Your task to perform on an android device: remove spam from my inbox in the gmail app Image 0: 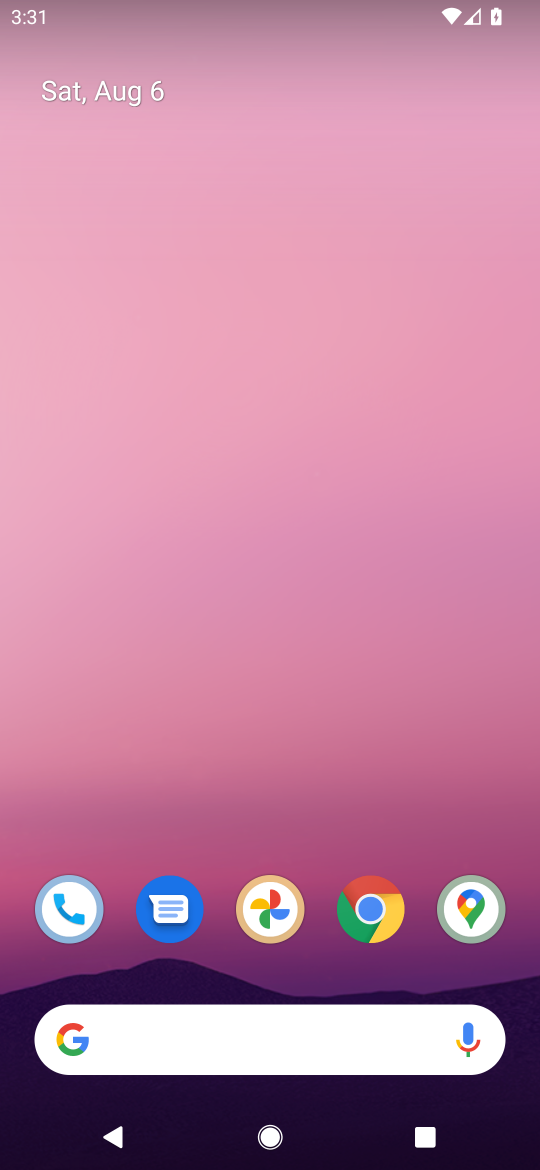
Step 0: press back button
Your task to perform on an android device: remove spam from my inbox in the gmail app Image 1: 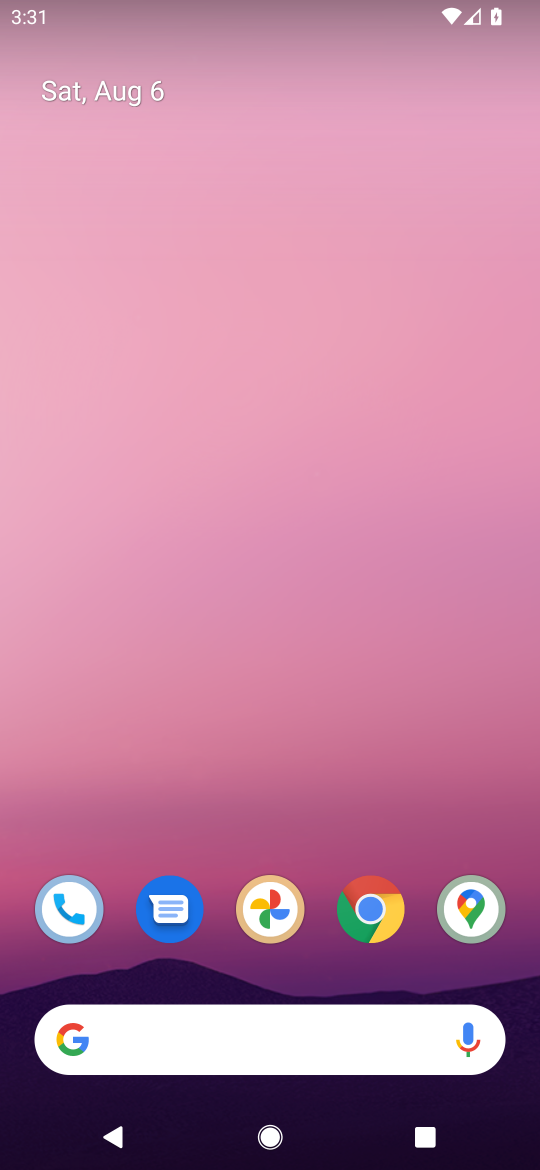
Step 1: drag from (204, 684) to (339, 12)
Your task to perform on an android device: remove spam from my inbox in the gmail app Image 2: 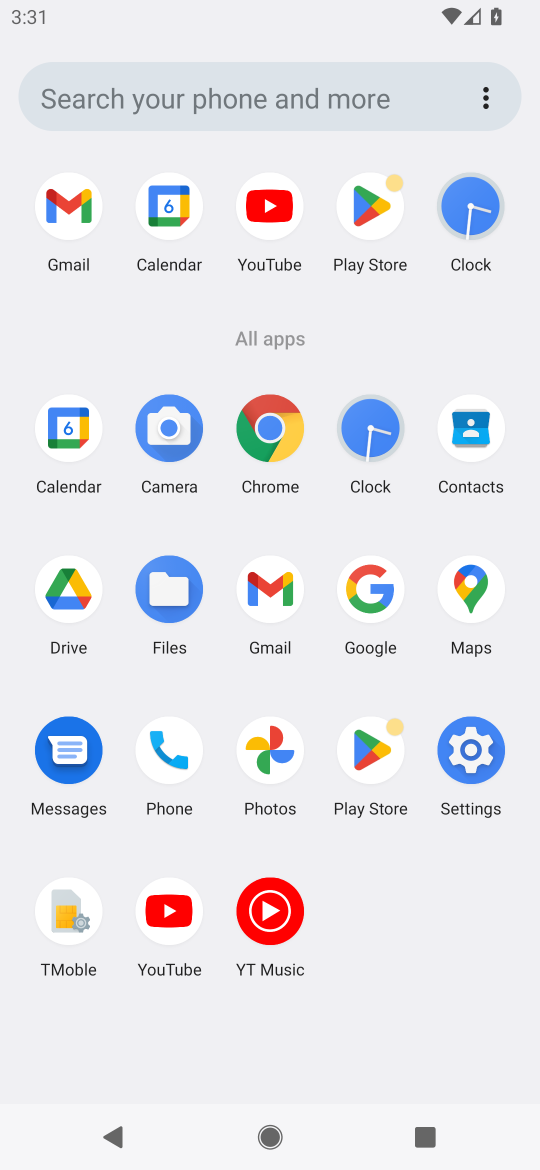
Step 2: click (61, 213)
Your task to perform on an android device: remove spam from my inbox in the gmail app Image 3: 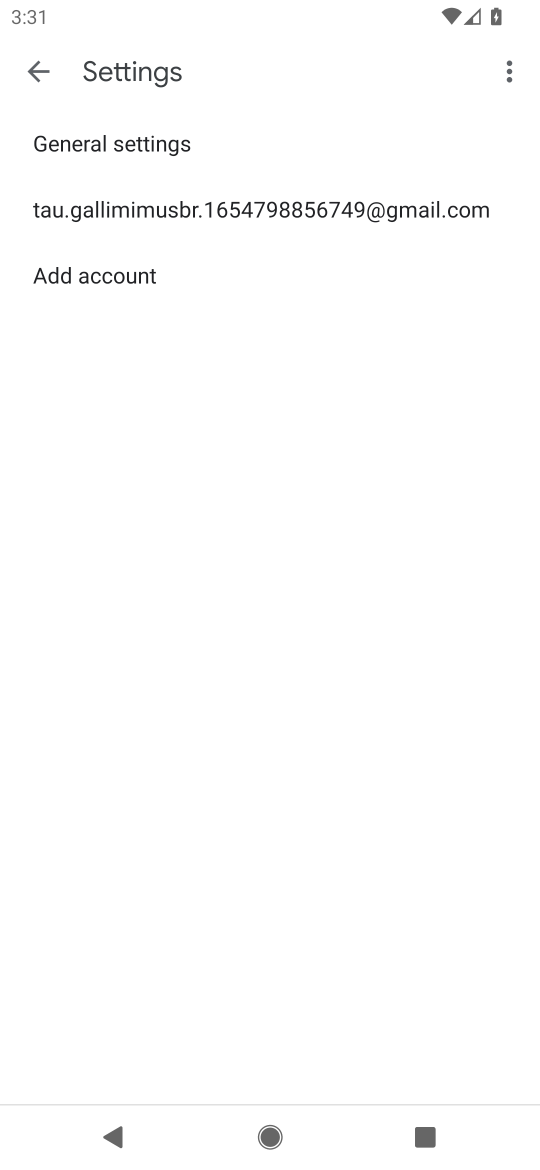
Step 3: click (39, 69)
Your task to perform on an android device: remove spam from my inbox in the gmail app Image 4: 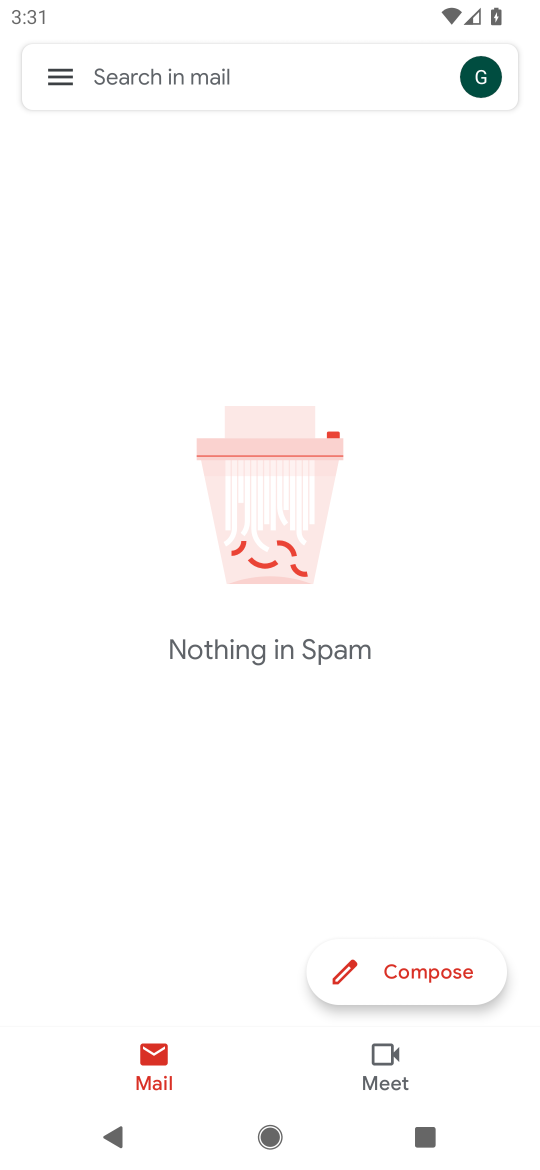
Step 4: click (45, 74)
Your task to perform on an android device: remove spam from my inbox in the gmail app Image 5: 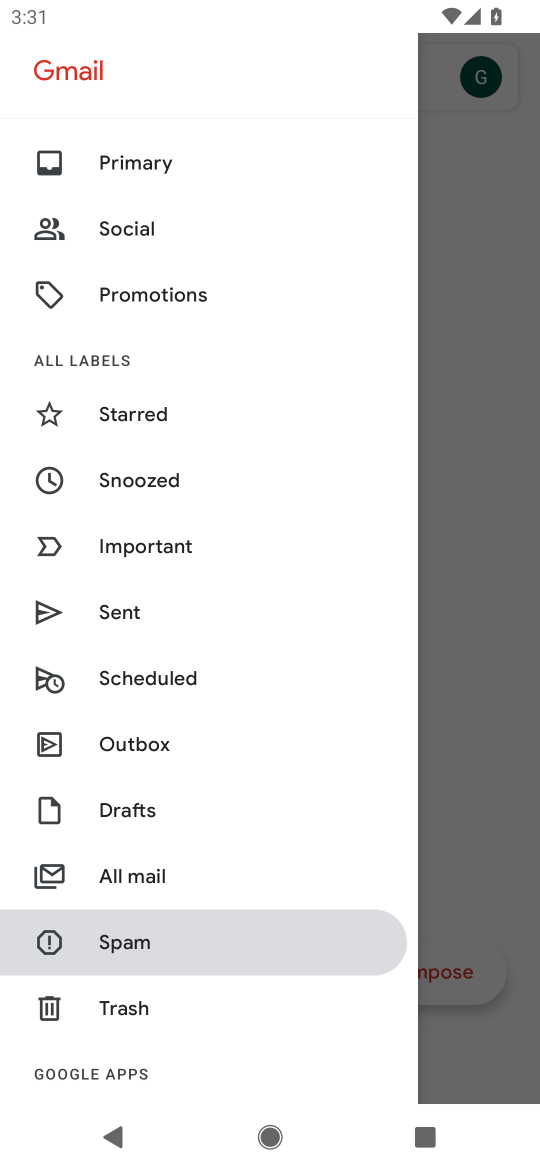
Step 5: click (132, 945)
Your task to perform on an android device: remove spam from my inbox in the gmail app Image 6: 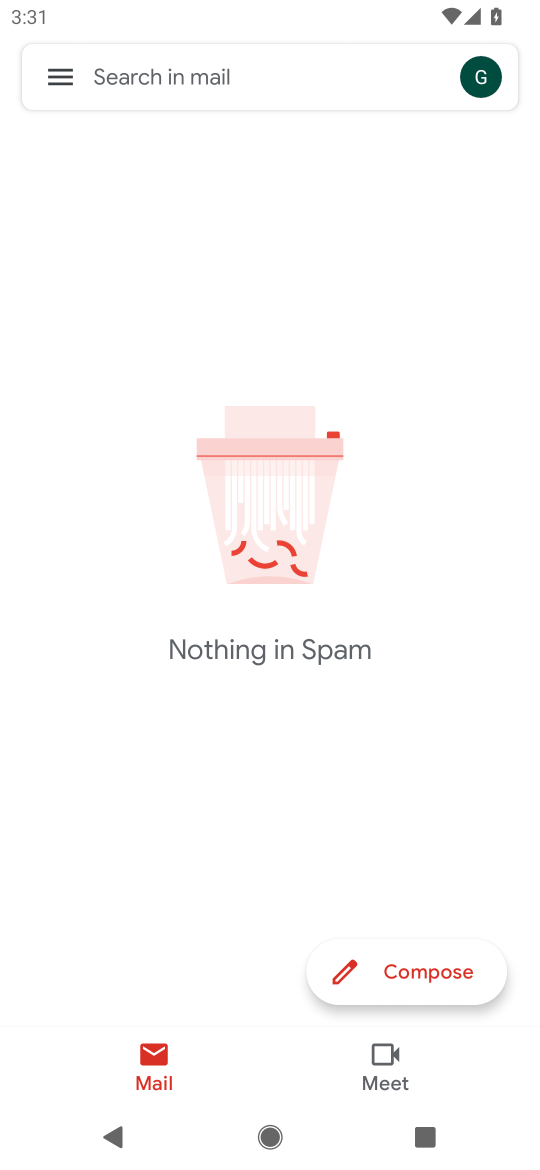
Step 6: task complete